Your task to perform on an android device: turn on the 24-hour format for clock Image 0: 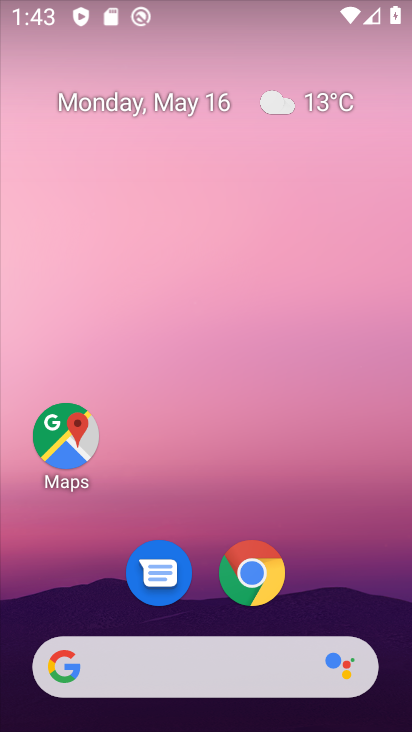
Step 0: drag from (201, 629) to (206, 98)
Your task to perform on an android device: turn on the 24-hour format for clock Image 1: 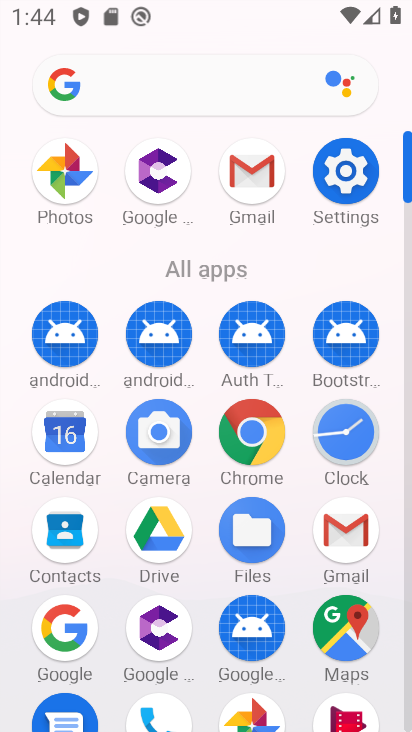
Step 1: click (336, 407)
Your task to perform on an android device: turn on the 24-hour format for clock Image 2: 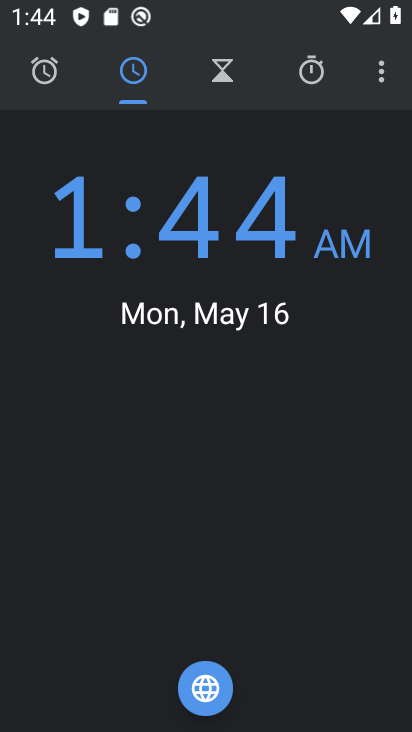
Step 2: click (393, 85)
Your task to perform on an android device: turn on the 24-hour format for clock Image 3: 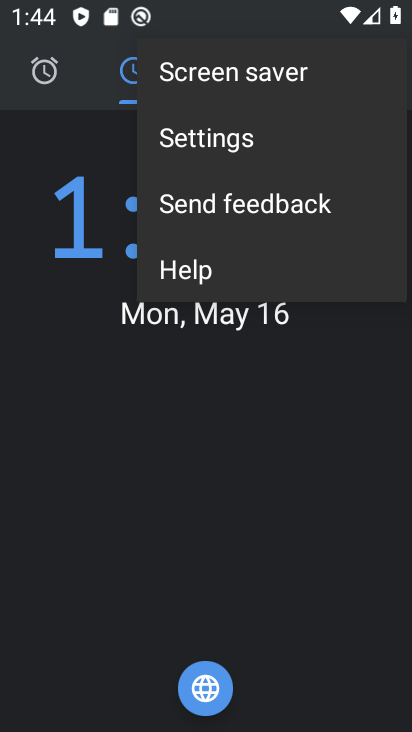
Step 3: click (289, 129)
Your task to perform on an android device: turn on the 24-hour format for clock Image 4: 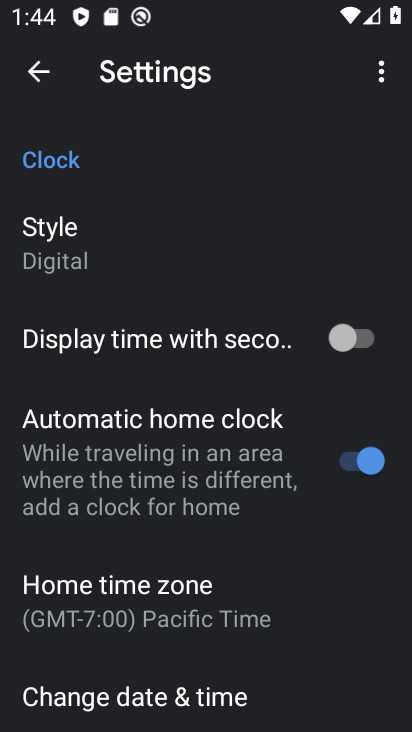
Step 4: click (276, 65)
Your task to perform on an android device: turn on the 24-hour format for clock Image 5: 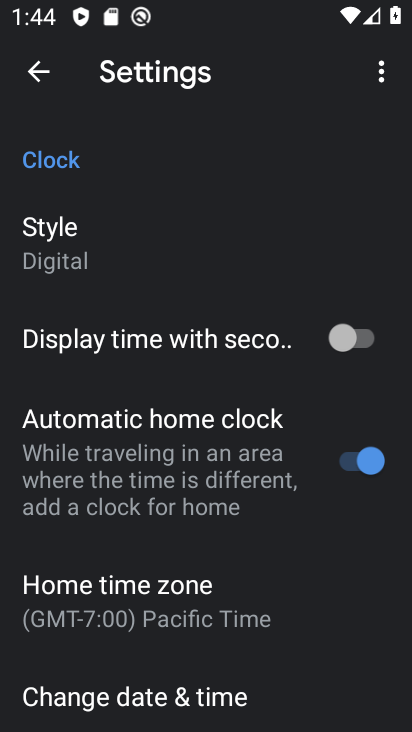
Step 5: drag from (209, 258) to (163, 147)
Your task to perform on an android device: turn on the 24-hour format for clock Image 6: 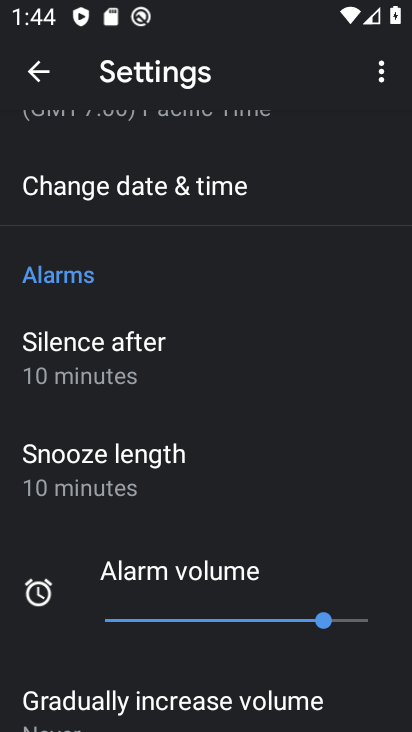
Step 6: click (208, 178)
Your task to perform on an android device: turn on the 24-hour format for clock Image 7: 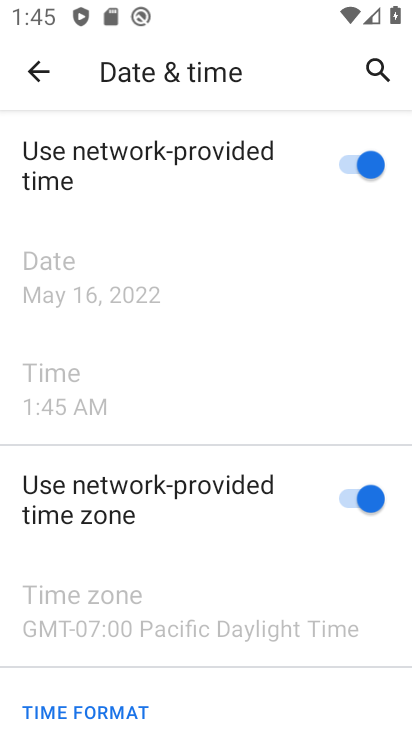
Step 7: click (59, 86)
Your task to perform on an android device: turn on the 24-hour format for clock Image 8: 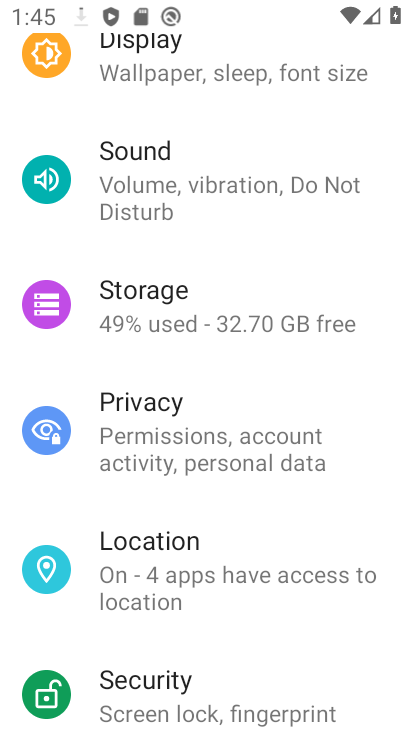
Step 8: drag from (220, 93) to (244, 553)
Your task to perform on an android device: turn on the 24-hour format for clock Image 9: 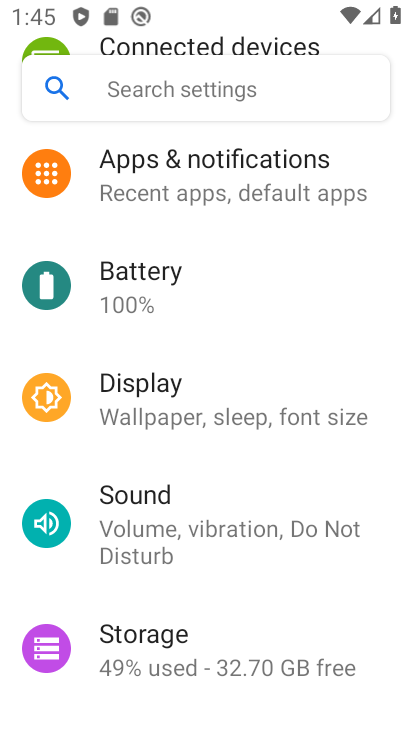
Step 9: press home button
Your task to perform on an android device: turn on the 24-hour format for clock Image 10: 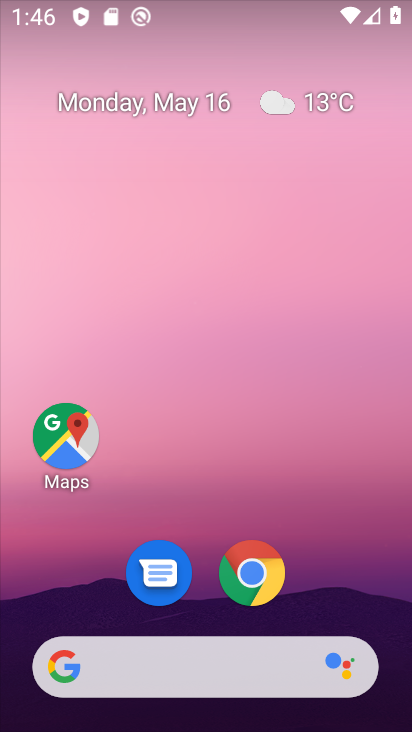
Step 10: drag from (209, 499) to (204, 50)
Your task to perform on an android device: turn on the 24-hour format for clock Image 11: 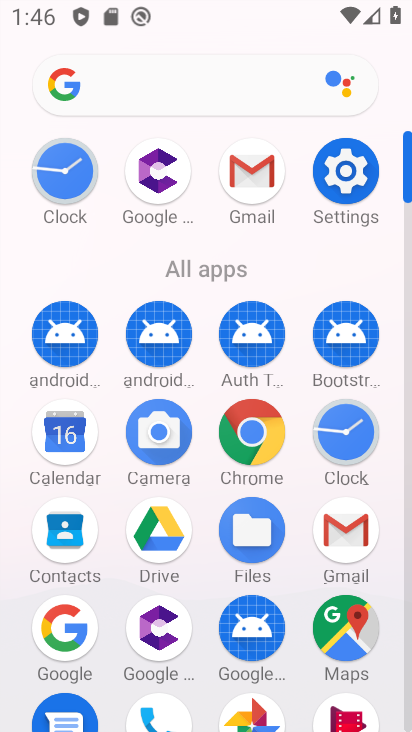
Step 11: click (337, 434)
Your task to perform on an android device: turn on the 24-hour format for clock Image 12: 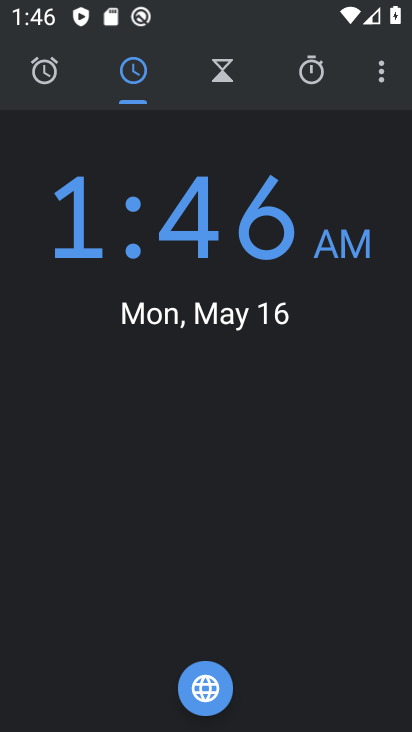
Step 12: click (388, 68)
Your task to perform on an android device: turn on the 24-hour format for clock Image 13: 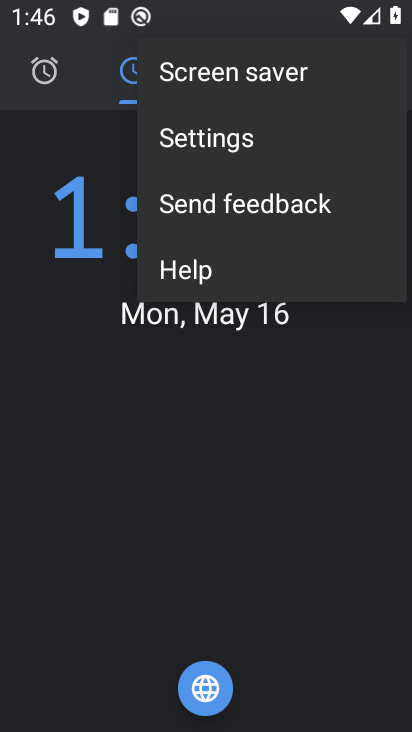
Step 13: click (225, 165)
Your task to perform on an android device: turn on the 24-hour format for clock Image 14: 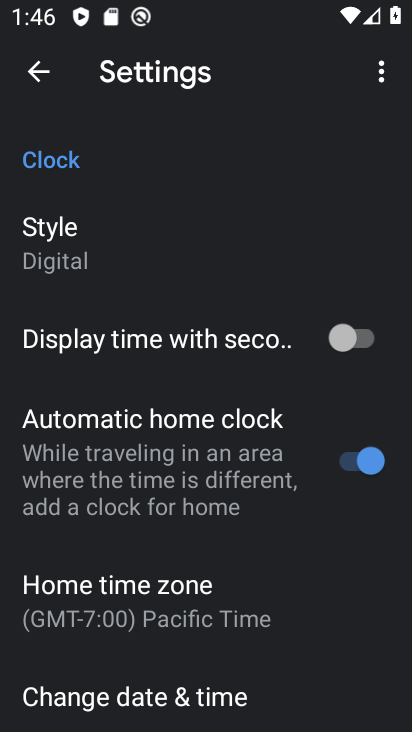
Step 14: click (225, 165)
Your task to perform on an android device: turn on the 24-hour format for clock Image 15: 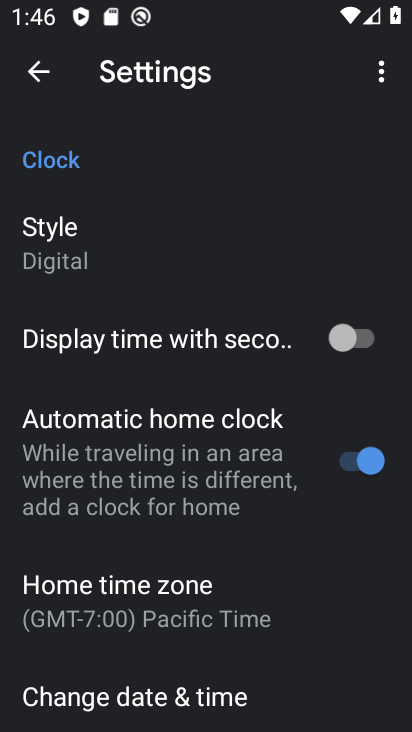
Step 15: click (208, 668)
Your task to perform on an android device: turn on the 24-hour format for clock Image 16: 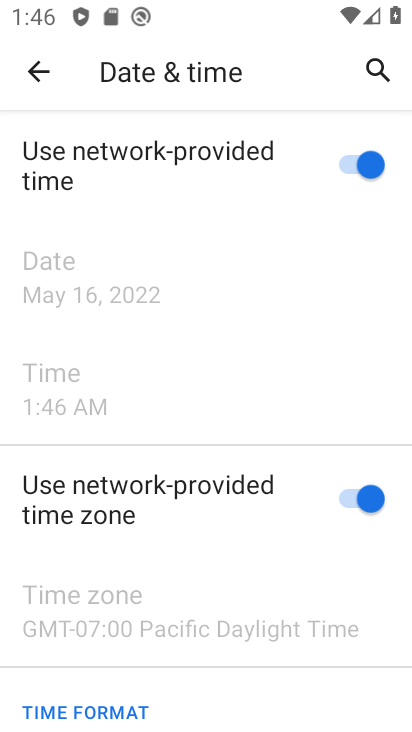
Step 16: drag from (208, 668) to (224, 362)
Your task to perform on an android device: turn on the 24-hour format for clock Image 17: 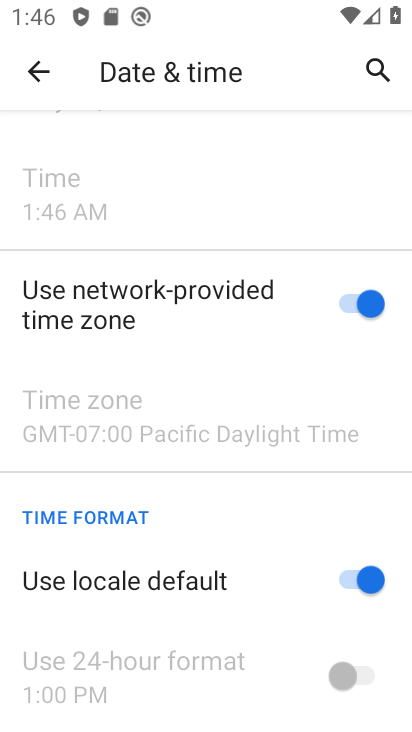
Step 17: click (350, 583)
Your task to perform on an android device: turn on the 24-hour format for clock Image 18: 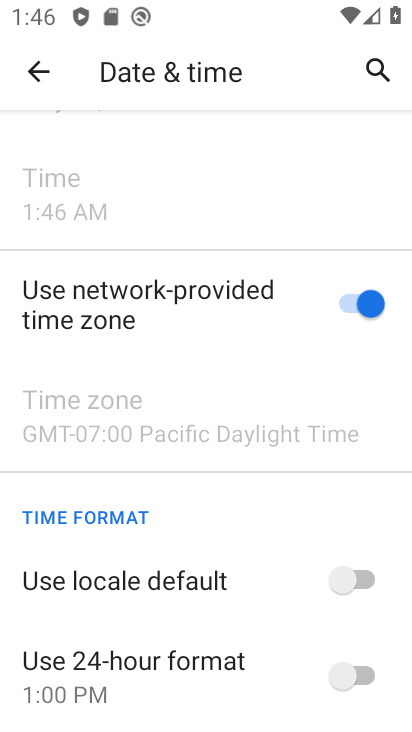
Step 18: click (367, 679)
Your task to perform on an android device: turn on the 24-hour format for clock Image 19: 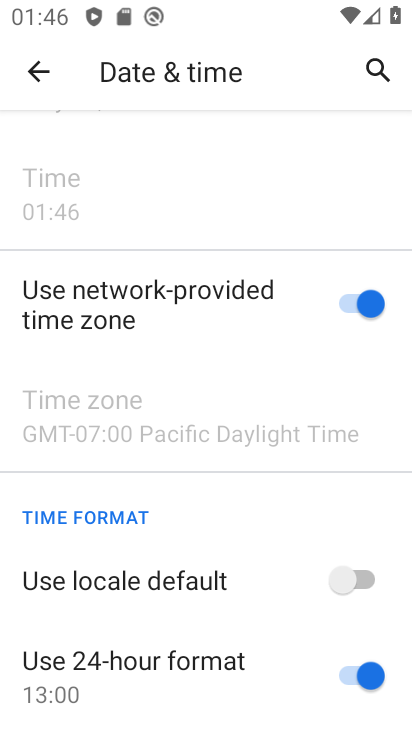
Step 19: task complete